Your task to perform on an android device: open app "McDonald's" Image 0: 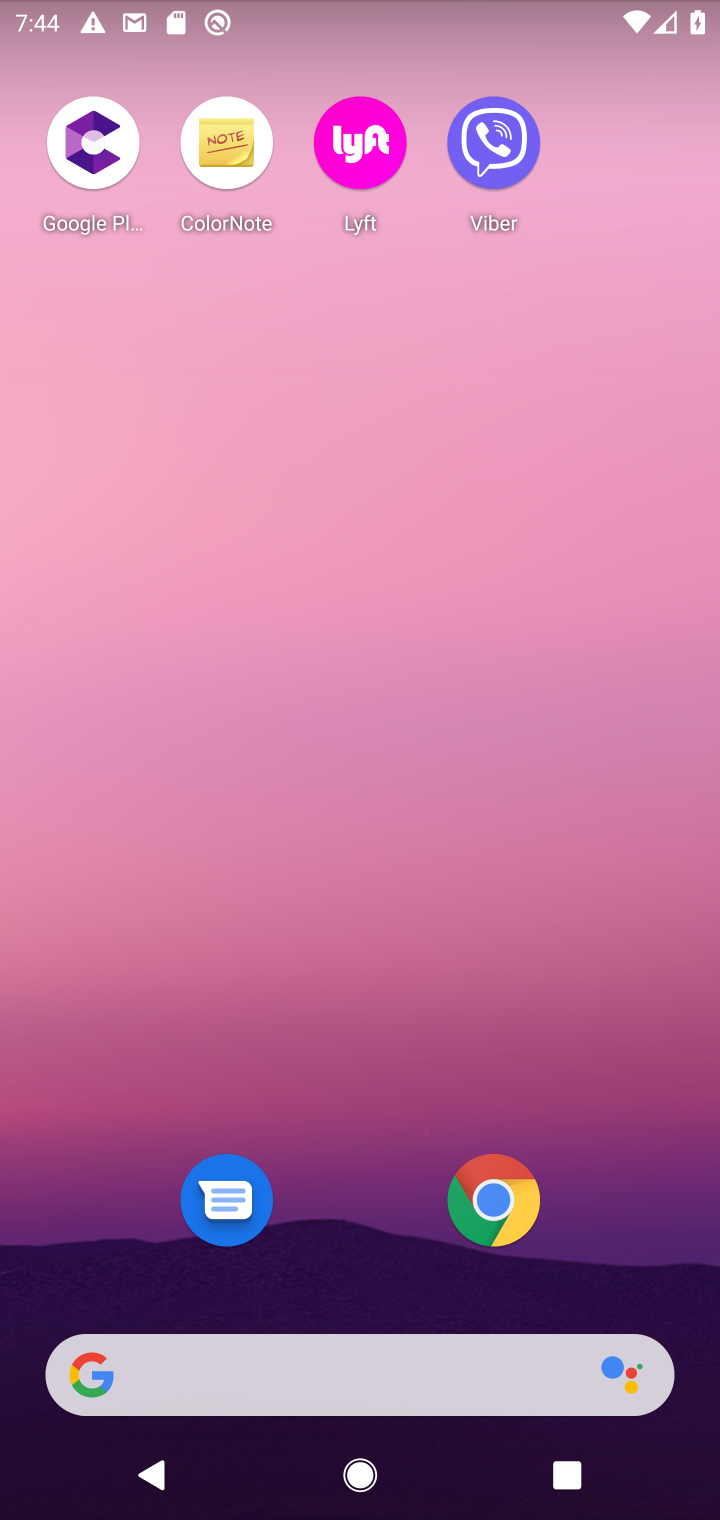
Step 0: drag from (403, 984) to (470, 232)
Your task to perform on an android device: open app "McDonald's" Image 1: 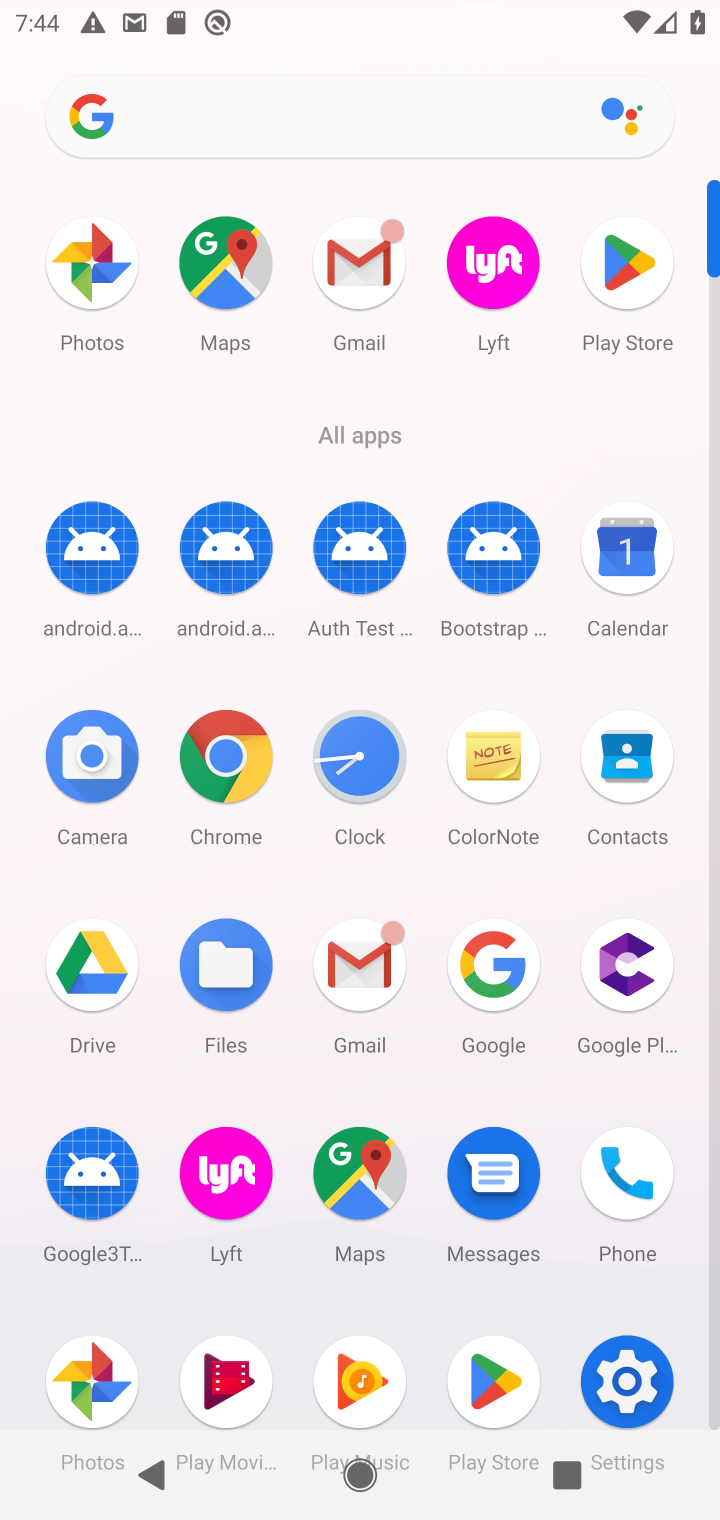
Step 1: click (506, 1374)
Your task to perform on an android device: open app "McDonald's" Image 2: 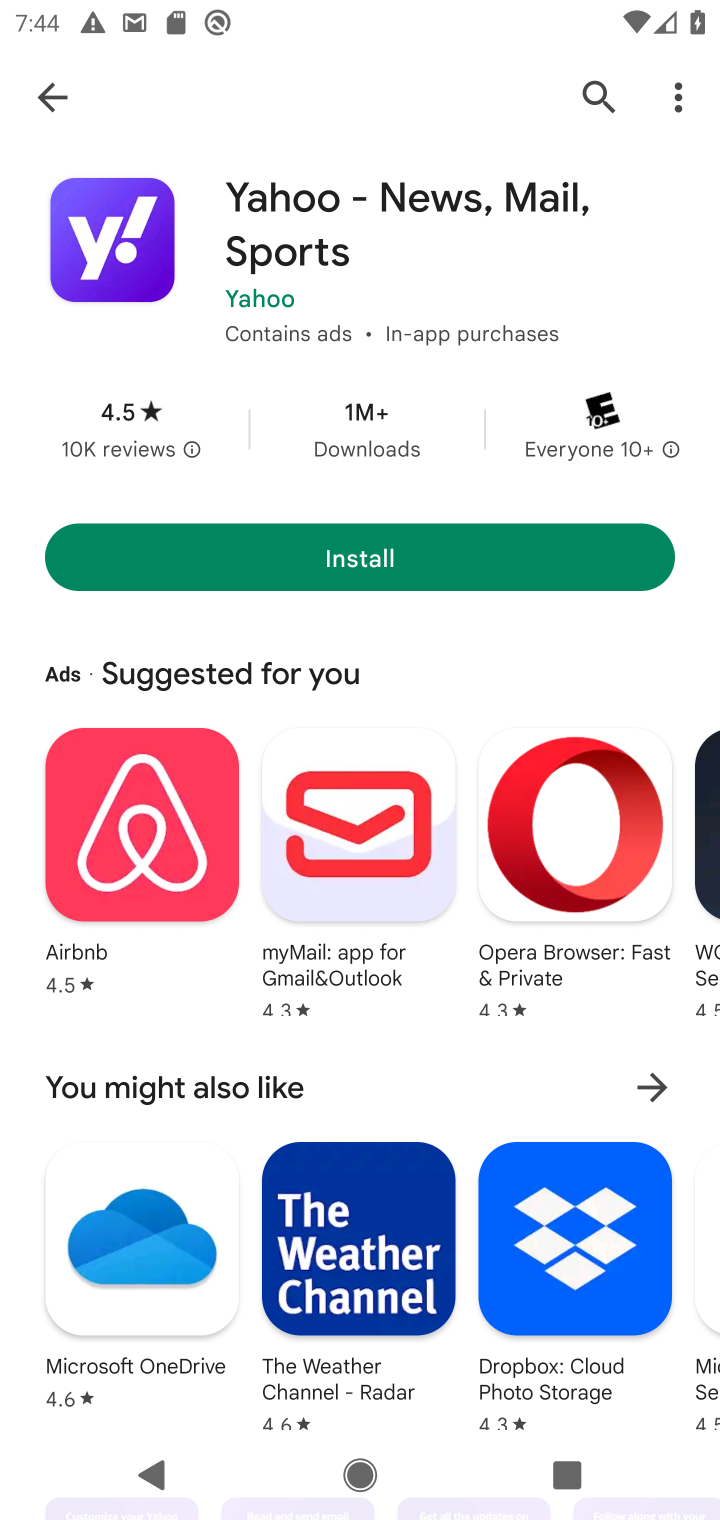
Step 2: click (59, 99)
Your task to perform on an android device: open app "McDonald's" Image 3: 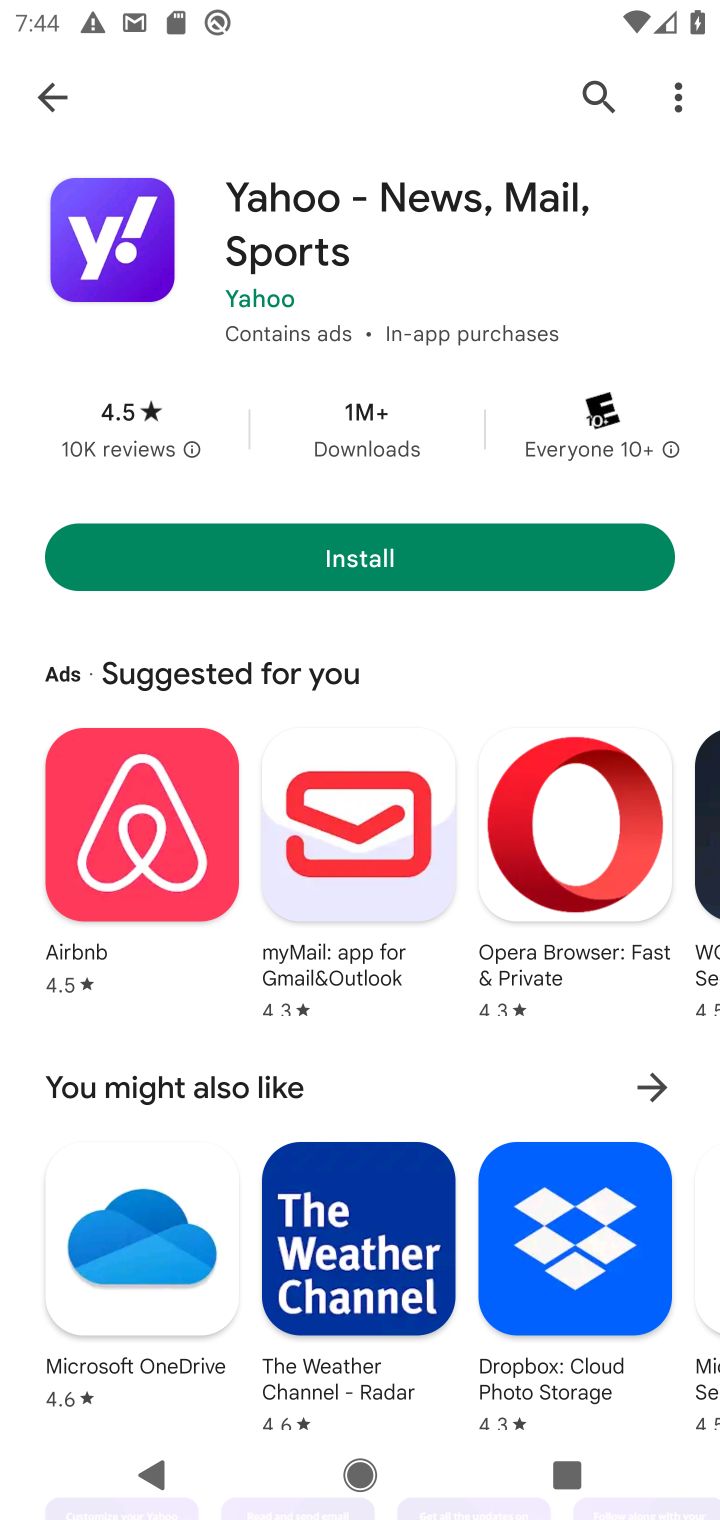
Step 3: click (51, 82)
Your task to perform on an android device: open app "McDonald's" Image 4: 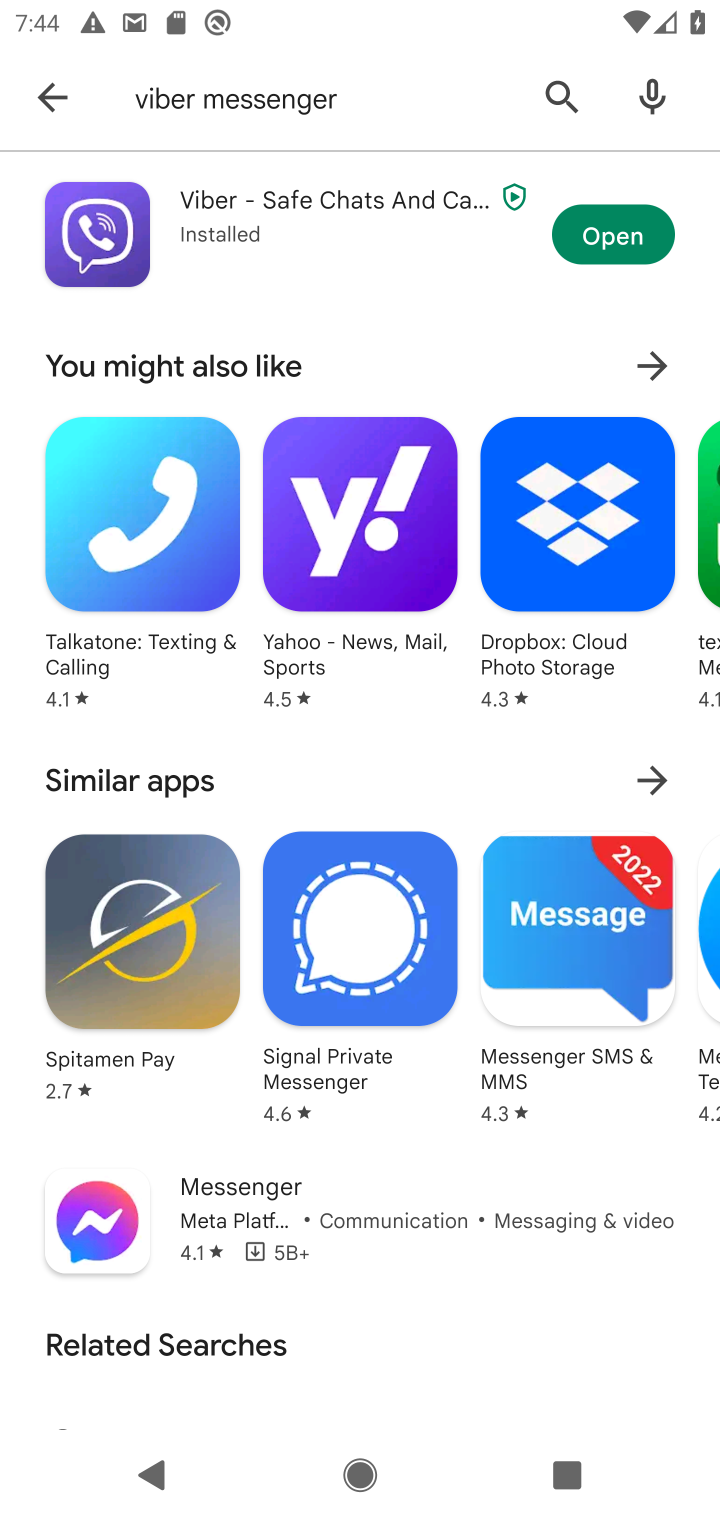
Step 4: click (562, 100)
Your task to perform on an android device: open app "McDonald's" Image 5: 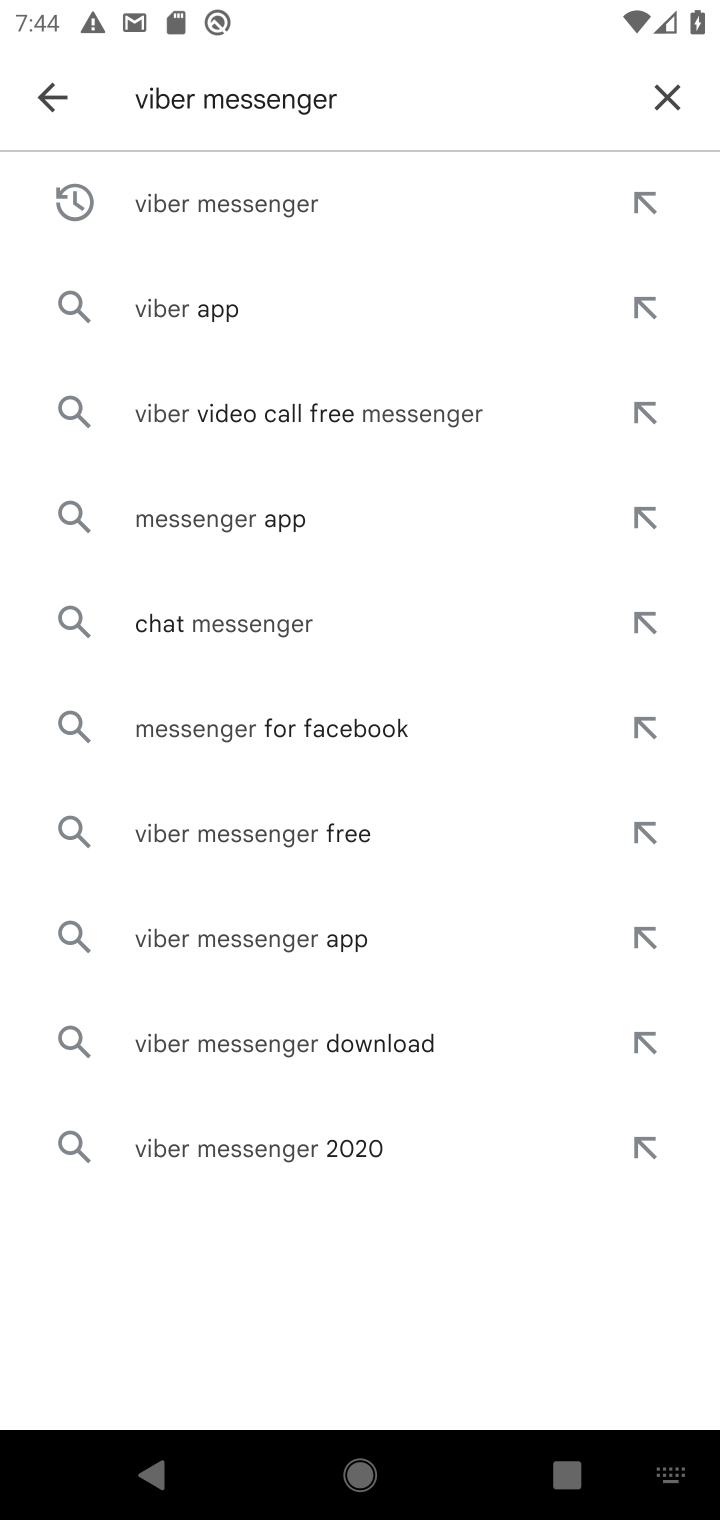
Step 5: click (670, 96)
Your task to perform on an android device: open app "McDonald's" Image 6: 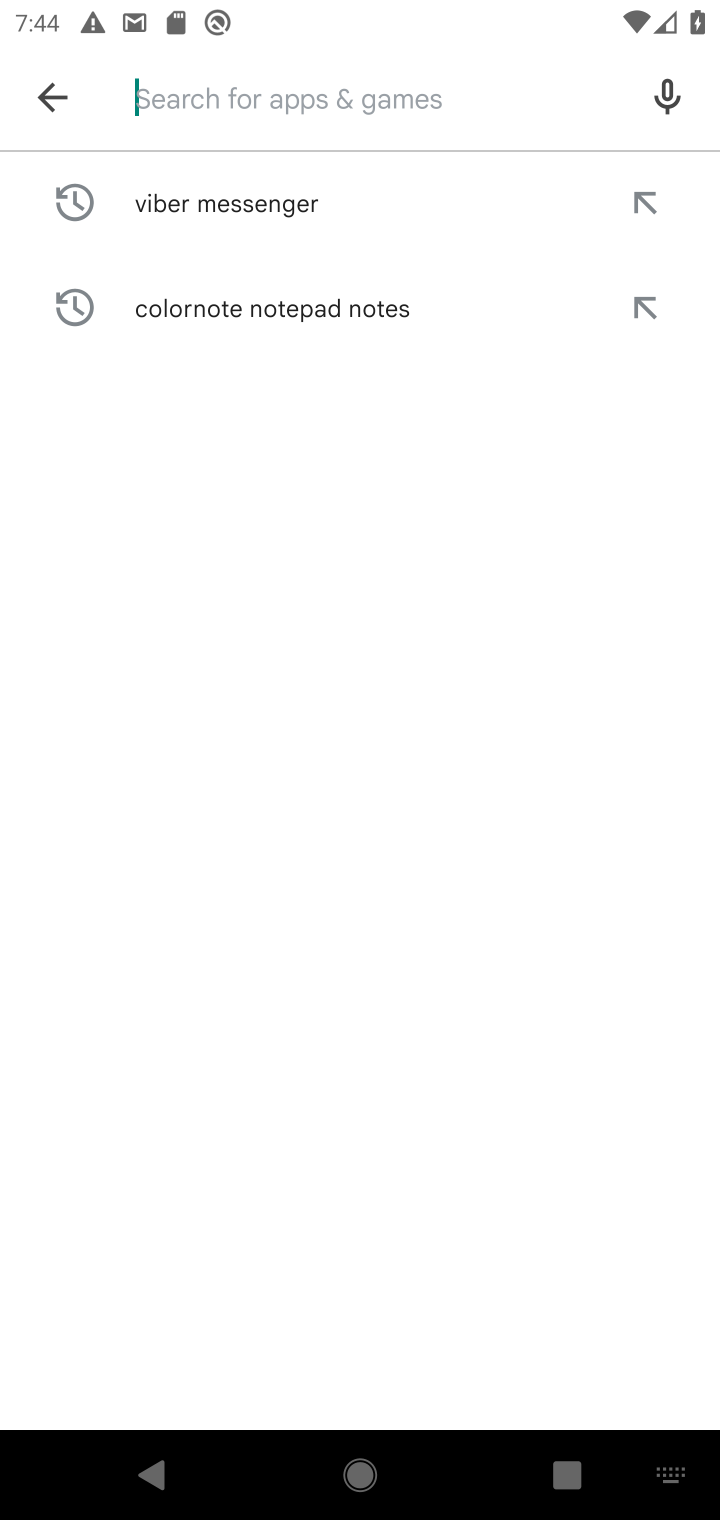
Step 6: type "McDonald's"
Your task to perform on an android device: open app "McDonald's" Image 7: 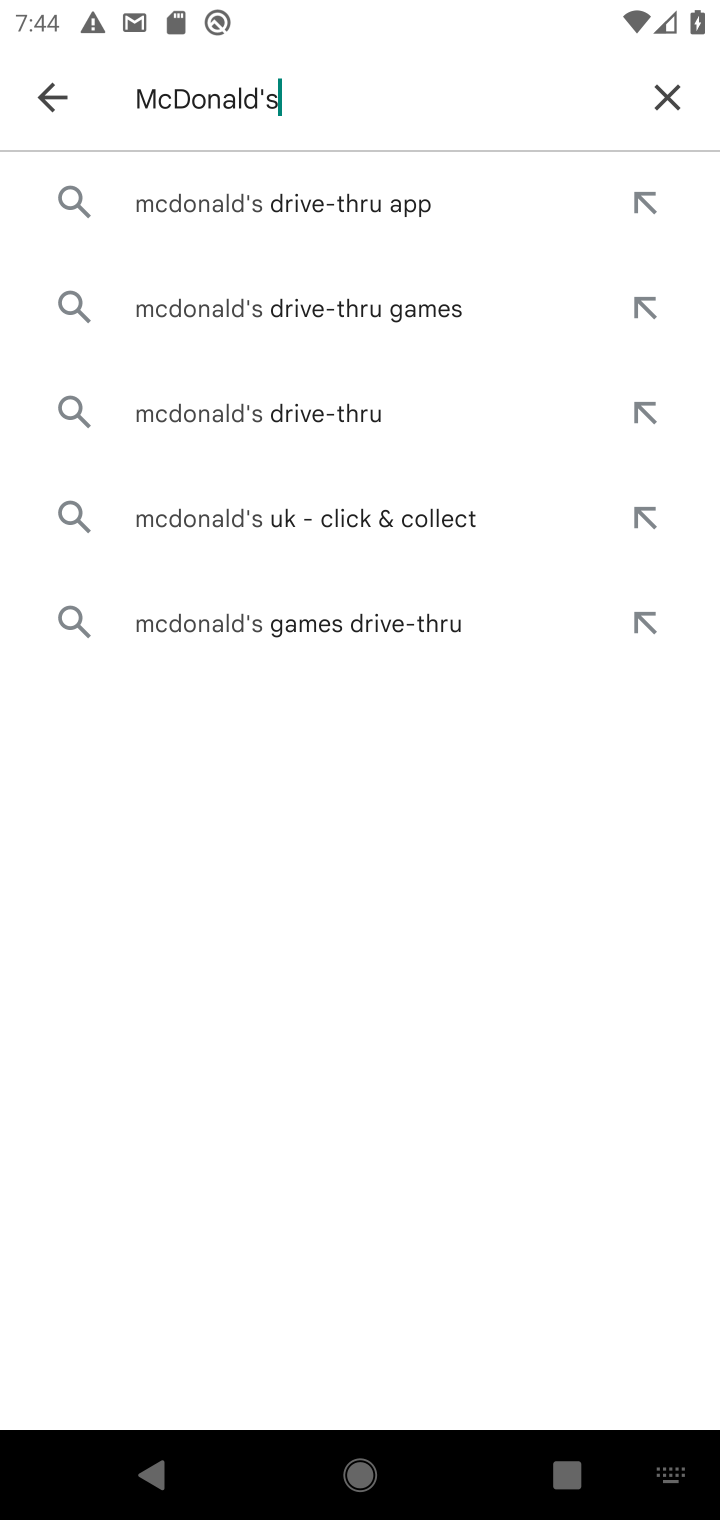
Step 7: click (257, 209)
Your task to perform on an android device: open app "McDonald's" Image 8: 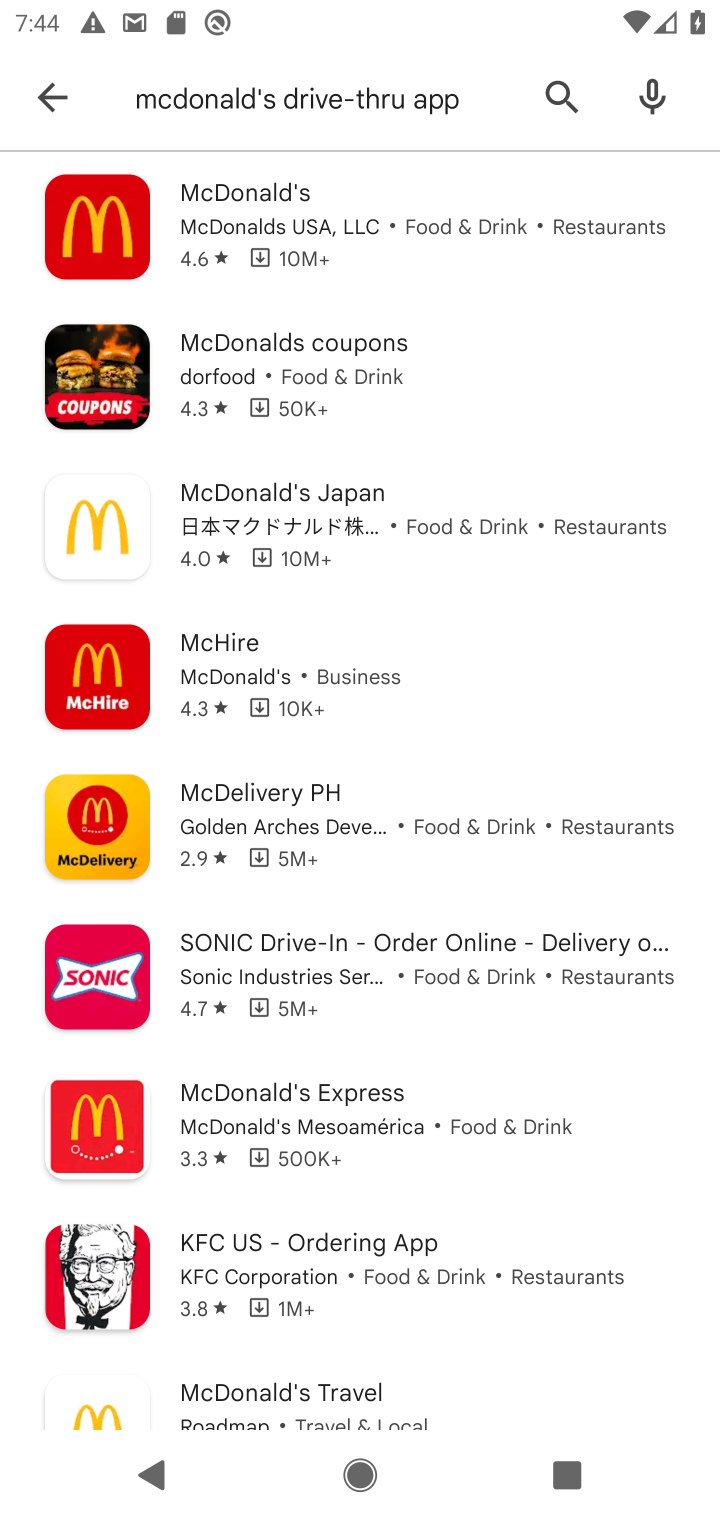
Step 8: click (246, 220)
Your task to perform on an android device: open app "McDonald's" Image 9: 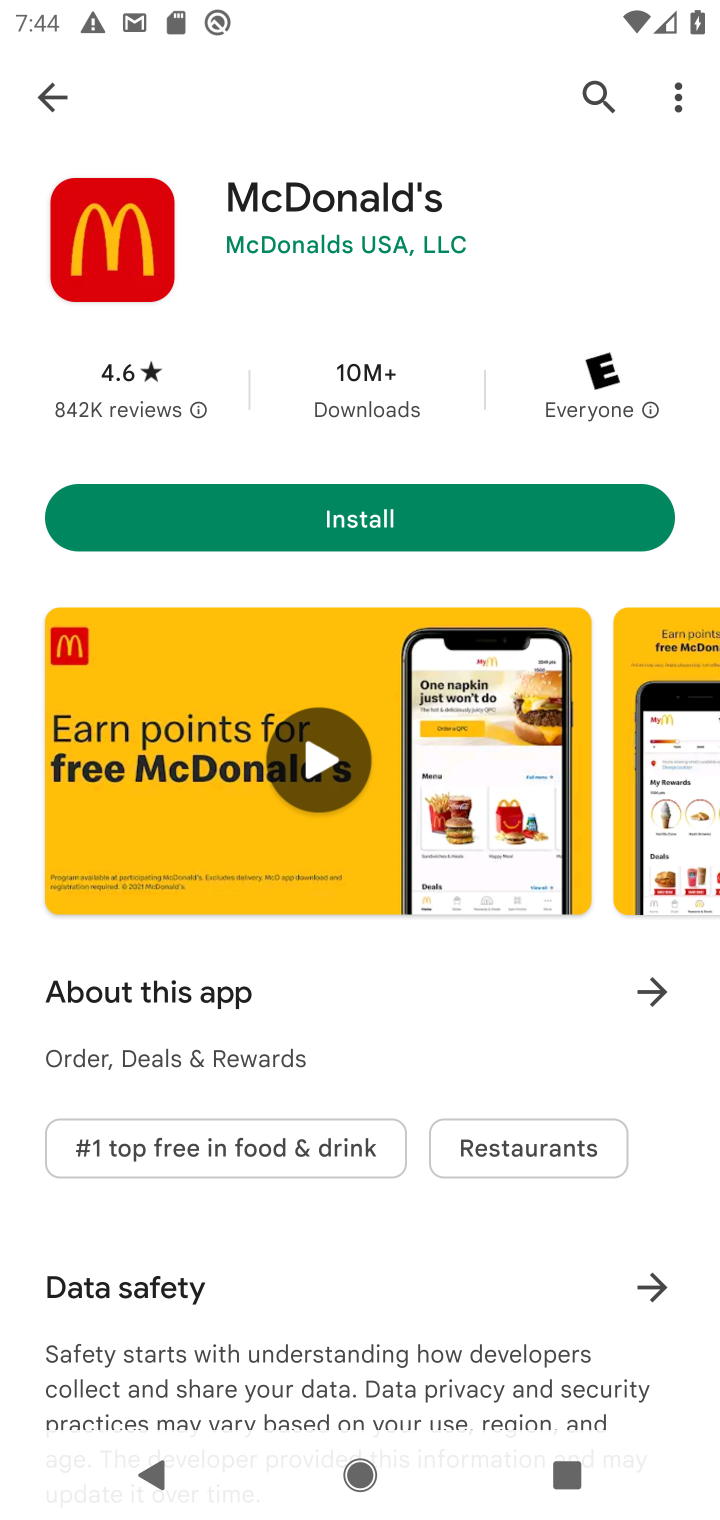
Step 9: click (357, 526)
Your task to perform on an android device: open app "McDonald's" Image 10: 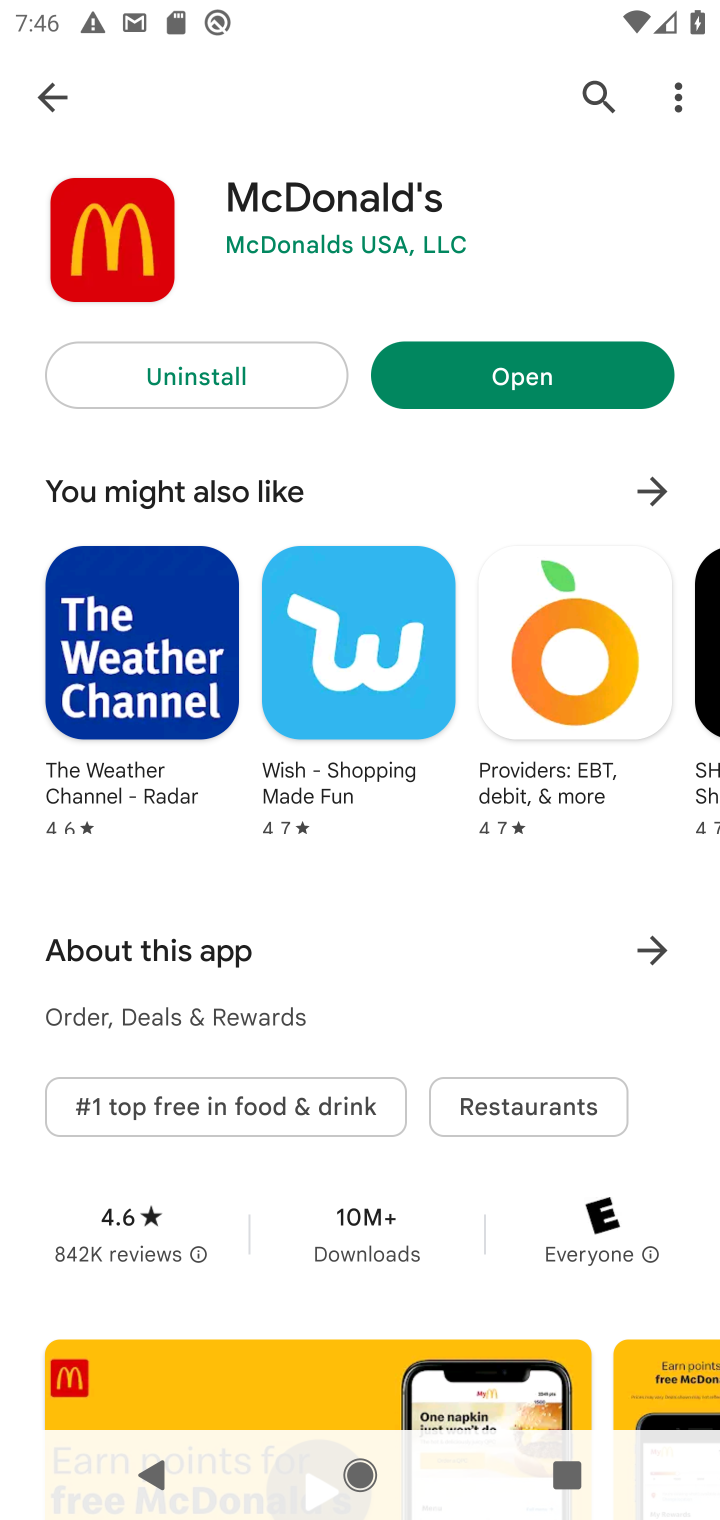
Step 10: click (591, 377)
Your task to perform on an android device: open app "McDonald's" Image 11: 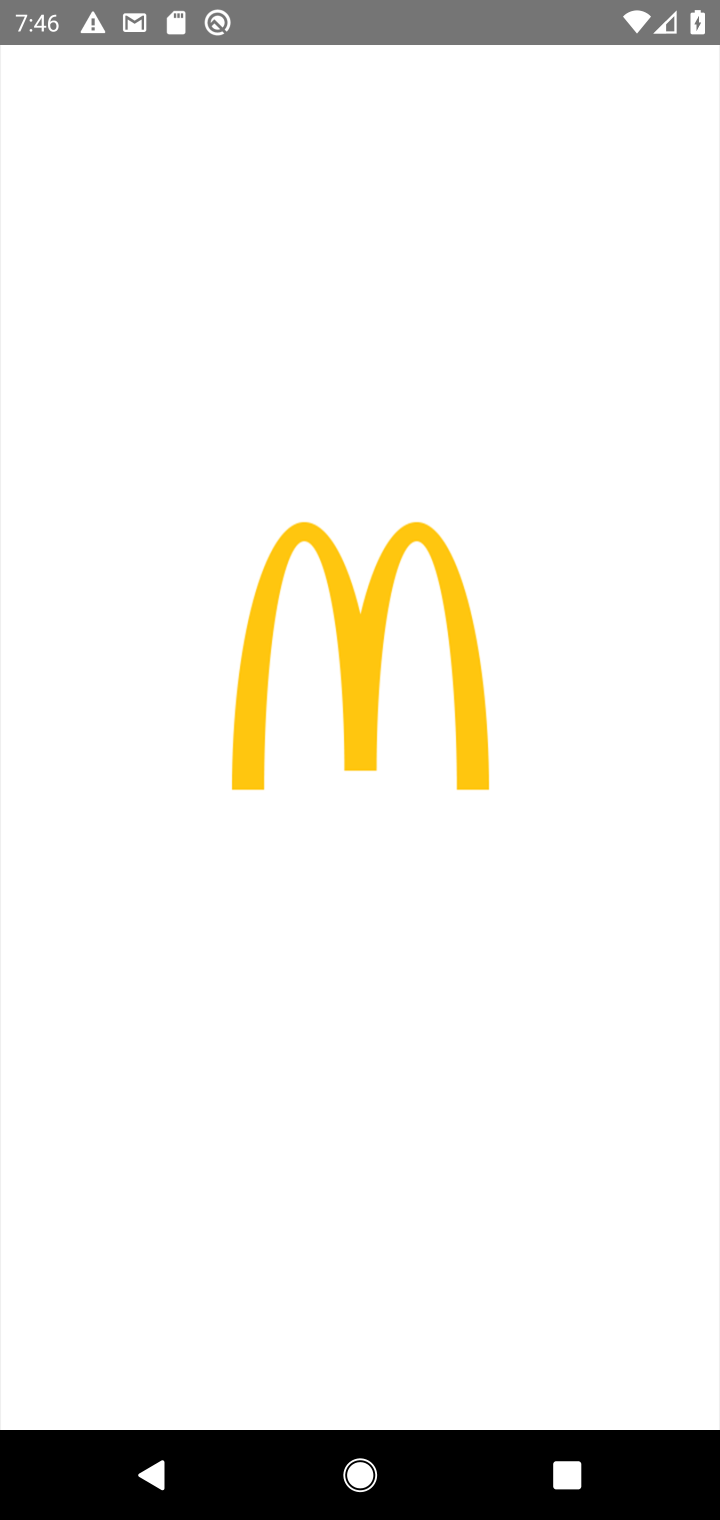
Step 11: task complete